Your task to perform on an android device: allow cookies in the chrome app Image 0: 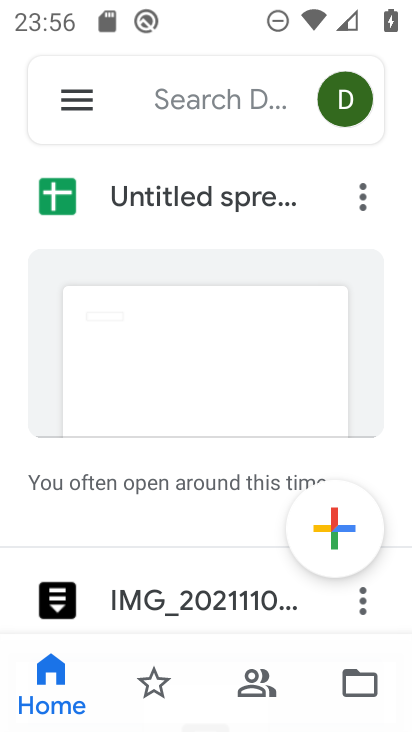
Step 0: press home button
Your task to perform on an android device: allow cookies in the chrome app Image 1: 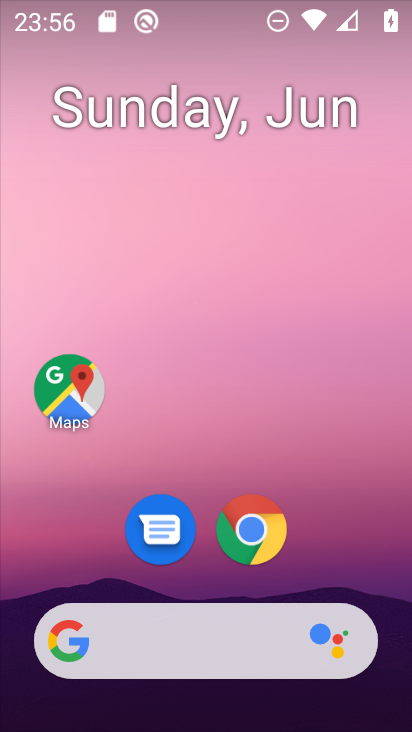
Step 1: click (248, 529)
Your task to perform on an android device: allow cookies in the chrome app Image 2: 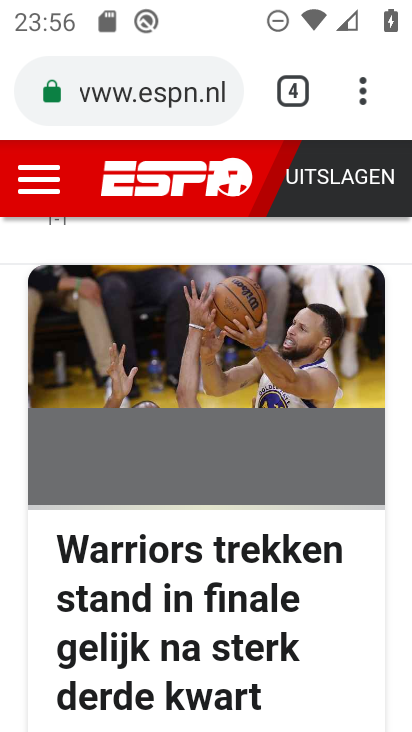
Step 2: click (361, 100)
Your task to perform on an android device: allow cookies in the chrome app Image 3: 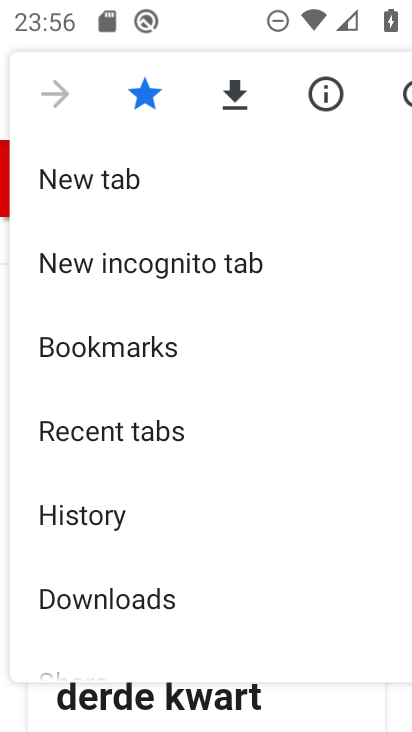
Step 3: drag from (262, 572) to (289, 153)
Your task to perform on an android device: allow cookies in the chrome app Image 4: 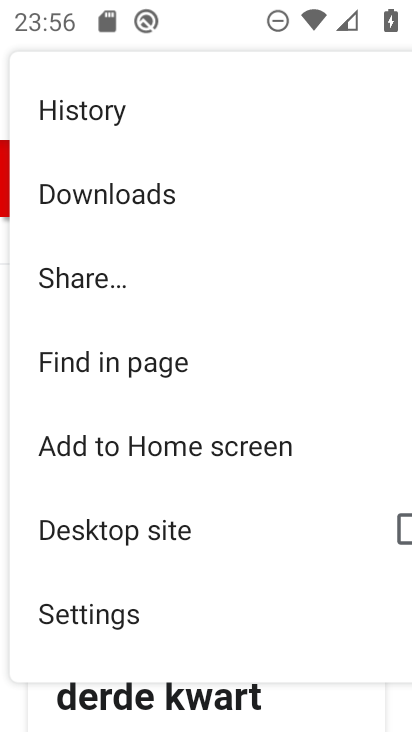
Step 4: drag from (251, 598) to (263, 174)
Your task to perform on an android device: allow cookies in the chrome app Image 5: 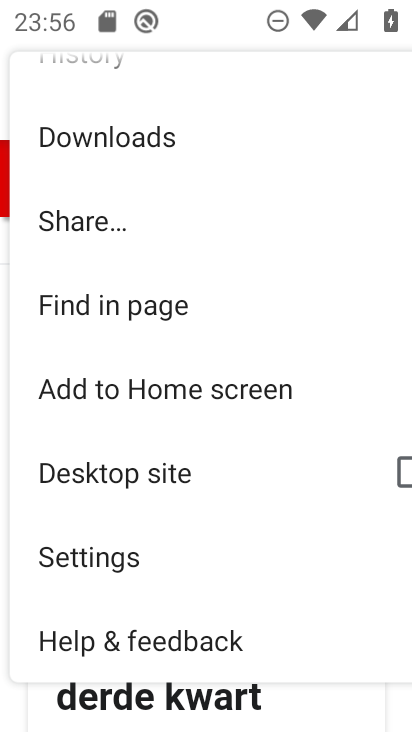
Step 5: click (104, 547)
Your task to perform on an android device: allow cookies in the chrome app Image 6: 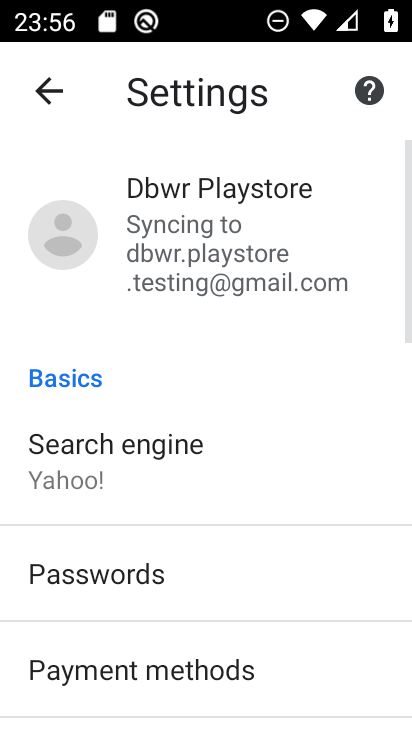
Step 6: drag from (281, 646) to (212, 125)
Your task to perform on an android device: allow cookies in the chrome app Image 7: 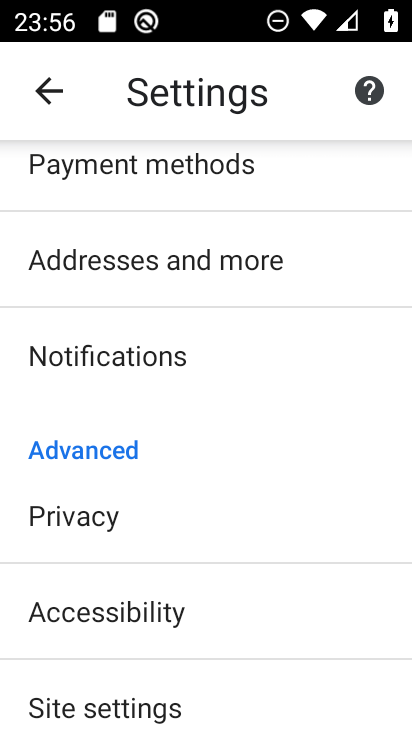
Step 7: drag from (182, 697) to (238, 364)
Your task to perform on an android device: allow cookies in the chrome app Image 8: 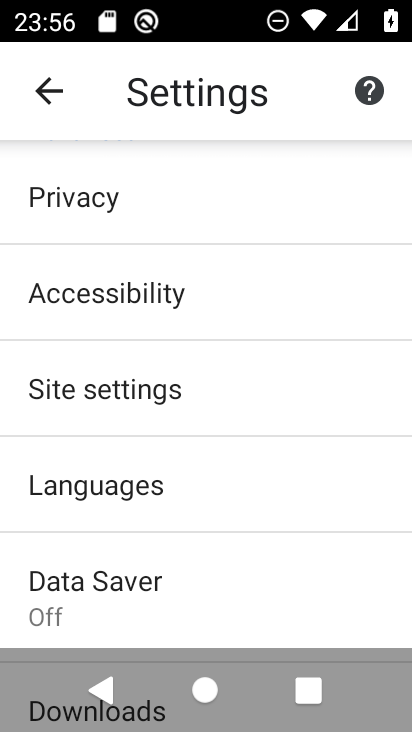
Step 8: click (78, 391)
Your task to perform on an android device: allow cookies in the chrome app Image 9: 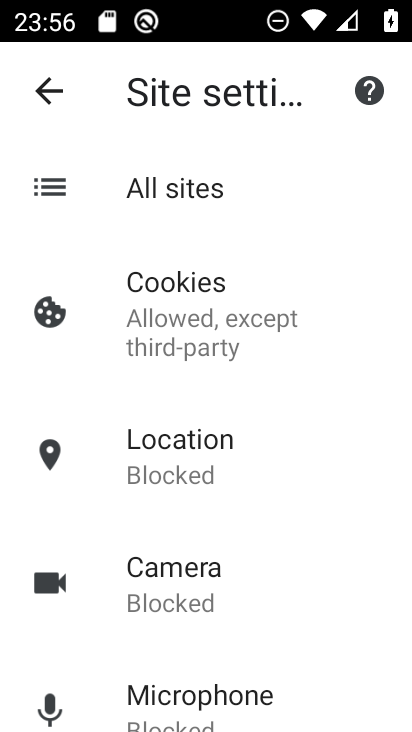
Step 9: click (168, 311)
Your task to perform on an android device: allow cookies in the chrome app Image 10: 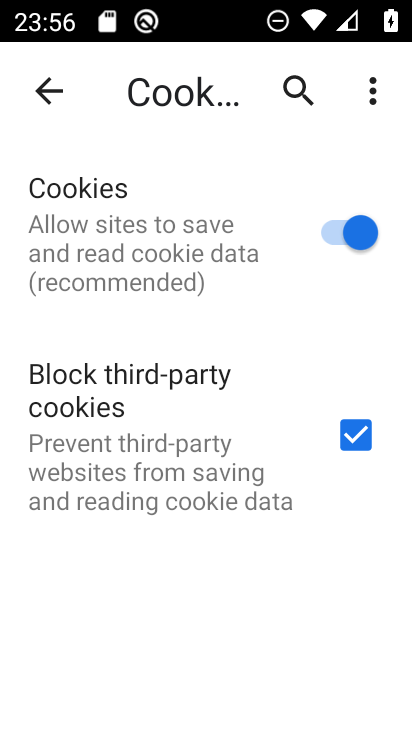
Step 10: task complete